Your task to perform on an android device: set the stopwatch Image 0: 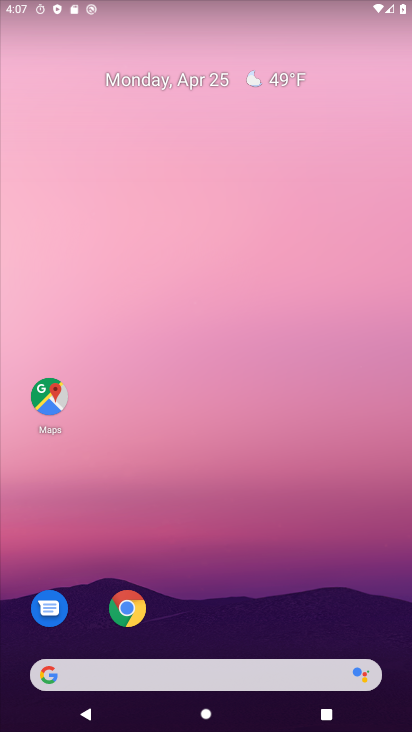
Step 0: drag from (222, 671) to (216, 357)
Your task to perform on an android device: set the stopwatch Image 1: 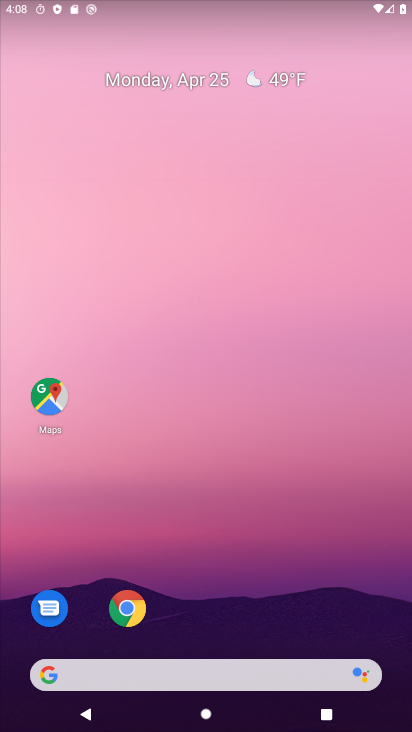
Step 1: drag from (236, 658) to (273, 179)
Your task to perform on an android device: set the stopwatch Image 2: 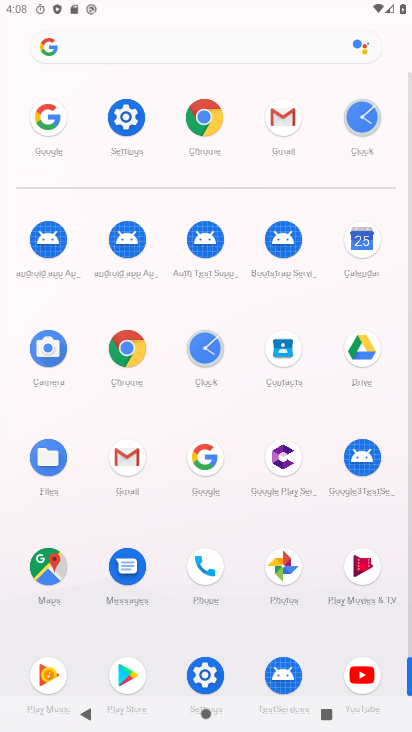
Step 2: click (212, 363)
Your task to perform on an android device: set the stopwatch Image 3: 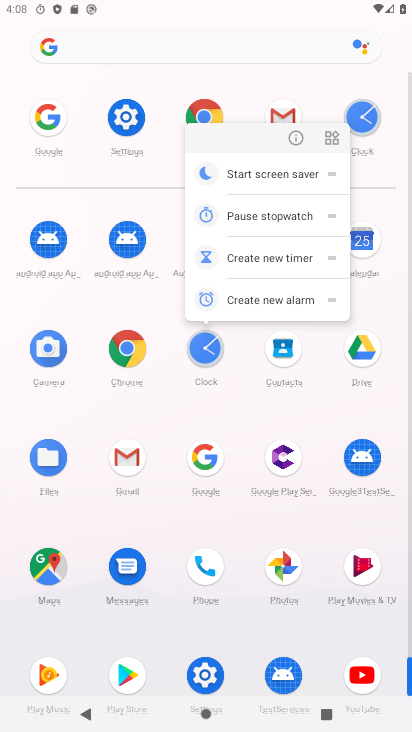
Step 3: click (206, 369)
Your task to perform on an android device: set the stopwatch Image 4: 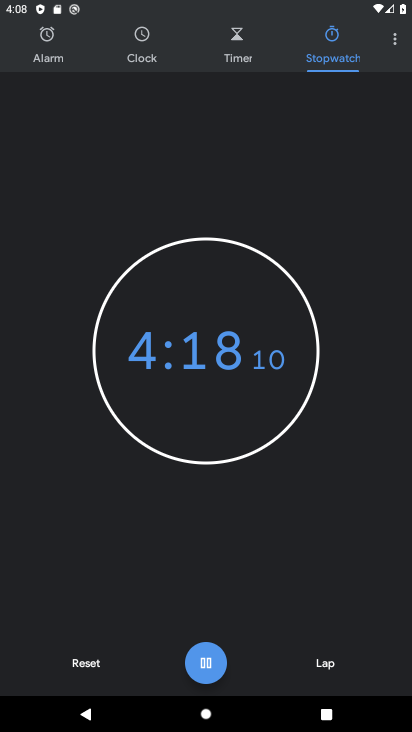
Step 4: click (74, 670)
Your task to perform on an android device: set the stopwatch Image 5: 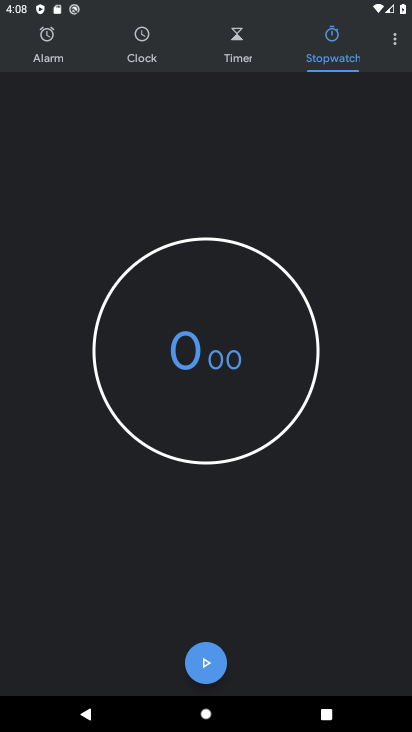
Step 5: task complete